Your task to perform on an android device: check battery use Image 0: 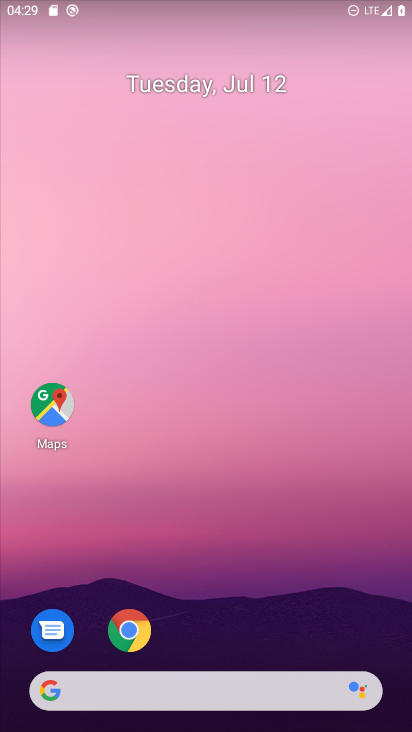
Step 0: drag from (288, 644) to (287, 16)
Your task to perform on an android device: check battery use Image 1: 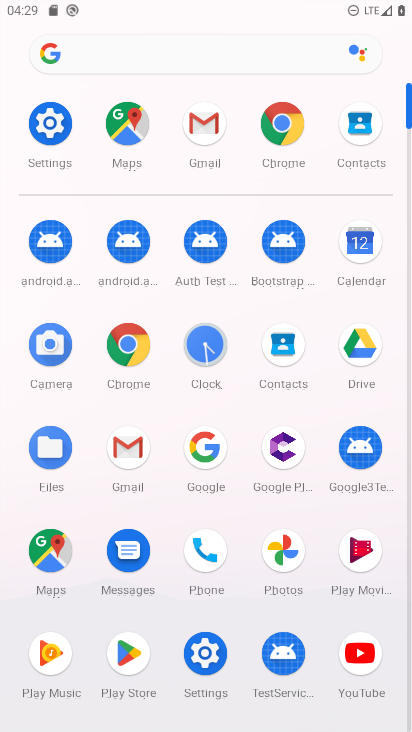
Step 1: click (41, 121)
Your task to perform on an android device: check battery use Image 2: 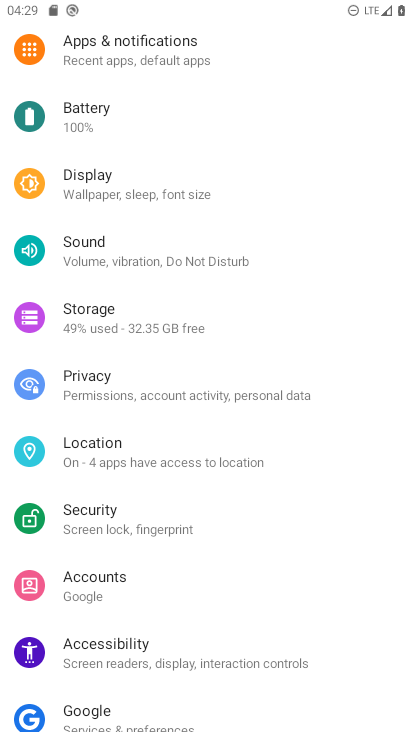
Step 2: click (141, 130)
Your task to perform on an android device: check battery use Image 3: 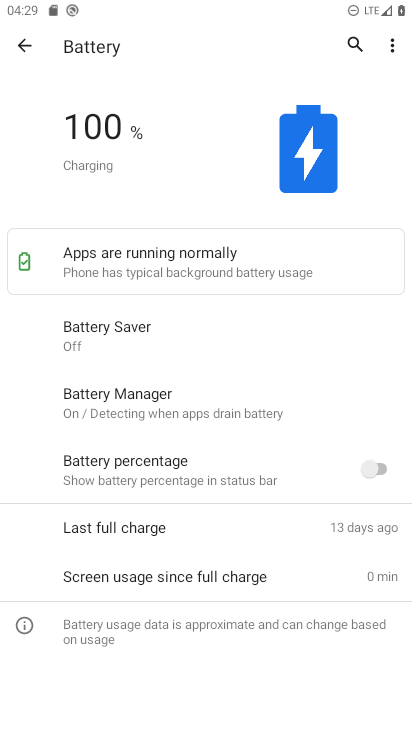
Step 3: task complete